Your task to perform on an android device: turn off location Image 0: 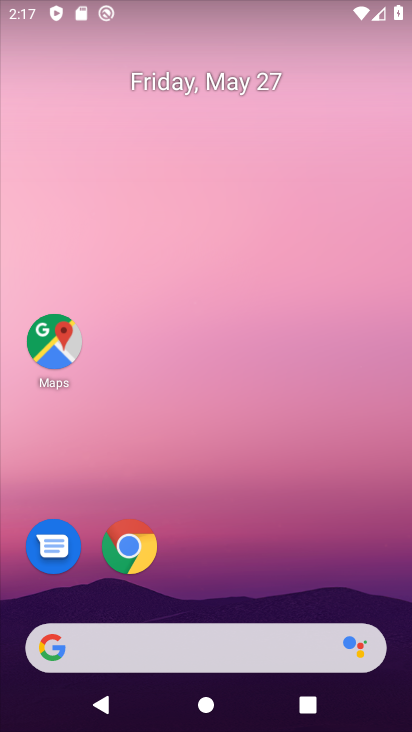
Step 0: drag from (187, 589) to (187, 126)
Your task to perform on an android device: turn off location Image 1: 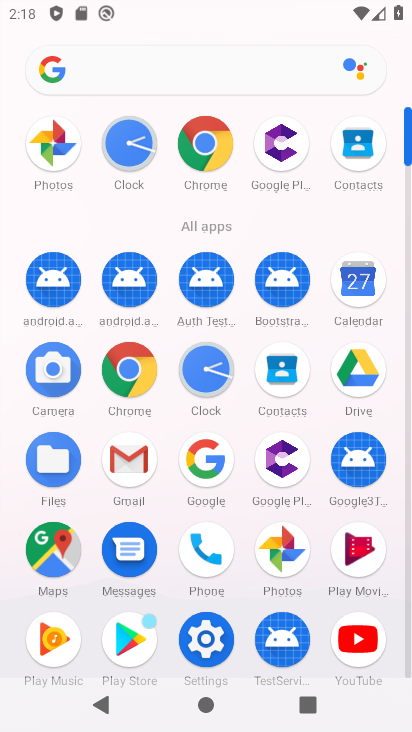
Step 1: click (205, 641)
Your task to perform on an android device: turn off location Image 2: 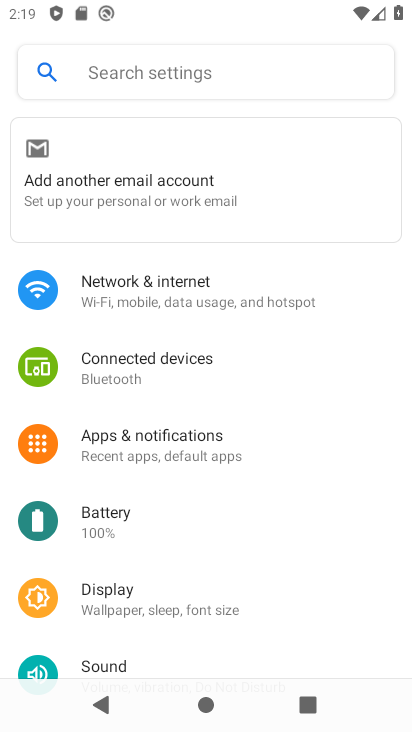
Step 2: drag from (127, 595) to (187, 218)
Your task to perform on an android device: turn off location Image 3: 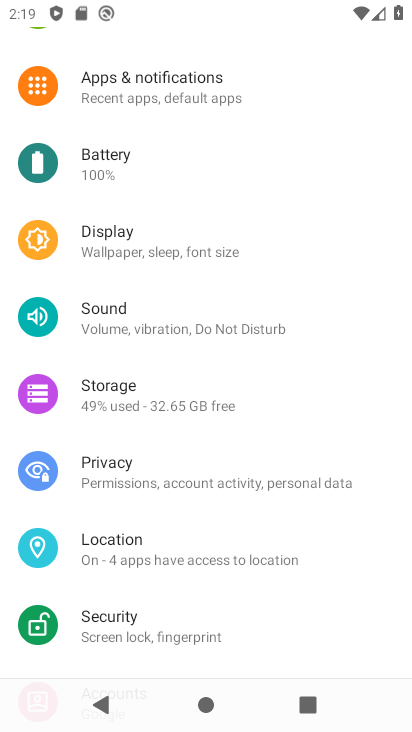
Step 3: click (153, 548)
Your task to perform on an android device: turn off location Image 4: 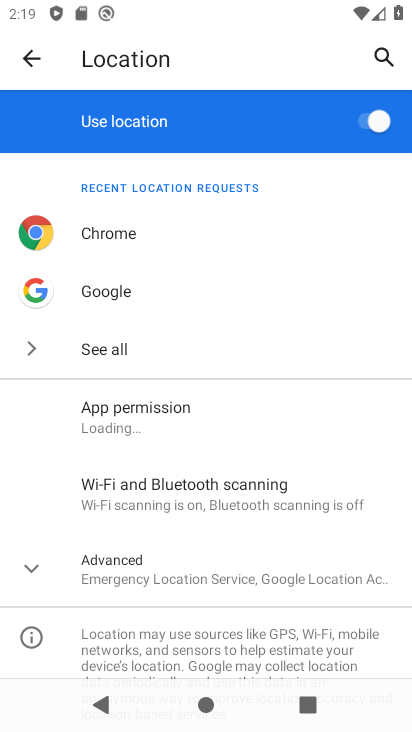
Step 4: click (362, 124)
Your task to perform on an android device: turn off location Image 5: 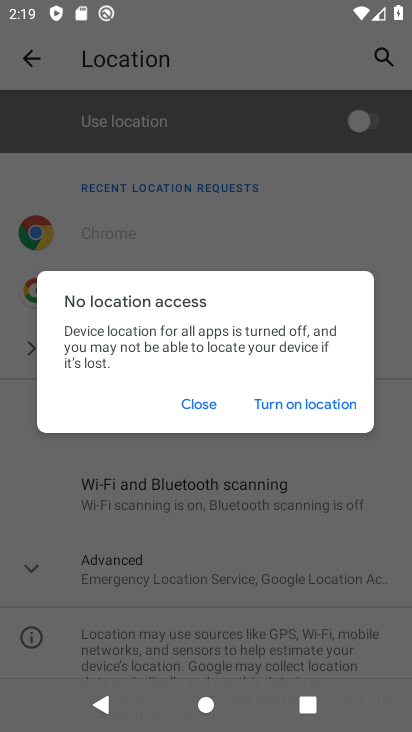
Step 5: task complete